Your task to perform on an android device: refresh tabs in the chrome app Image 0: 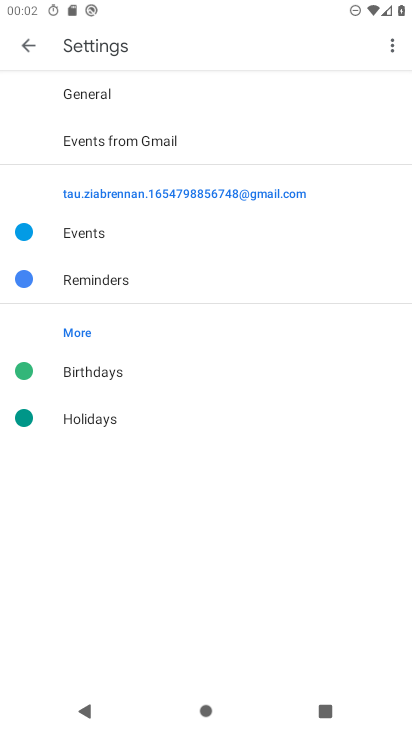
Step 0: press home button
Your task to perform on an android device: refresh tabs in the chrome app Image 1: 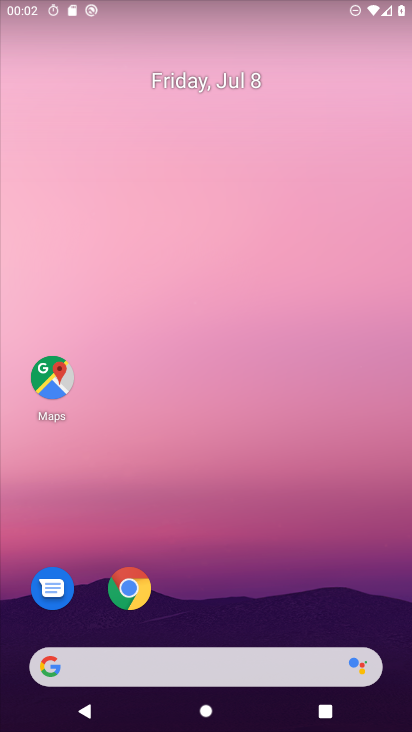
Step 1: drag from (262, 572) to (279, 154)
Your task to perform on an android device: refresh tabs in the chrome app Image 2: 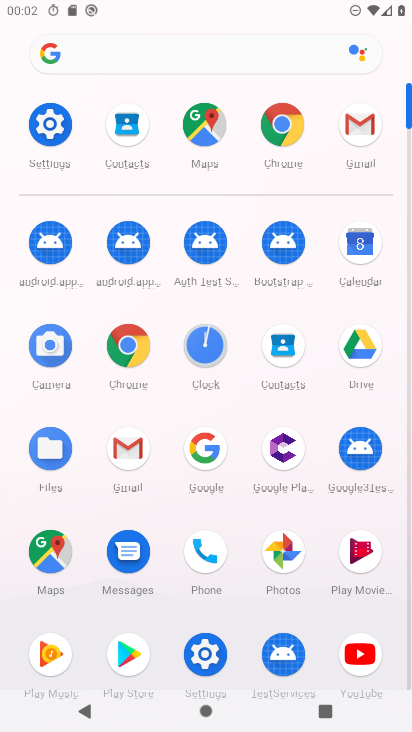
Step 2: click (285, 129)
Your task to perform on an android device: refresh tabs in the chrome app Image 3: 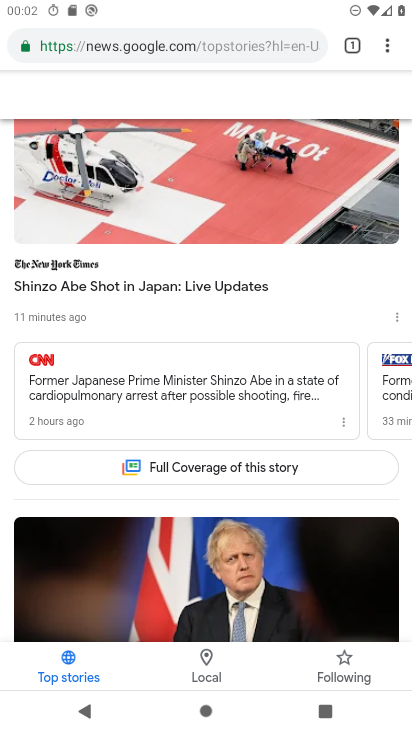
Step 3: click (388, 41)
Your task to perform on an android device: refresh tabs in the chrome app Image 4: 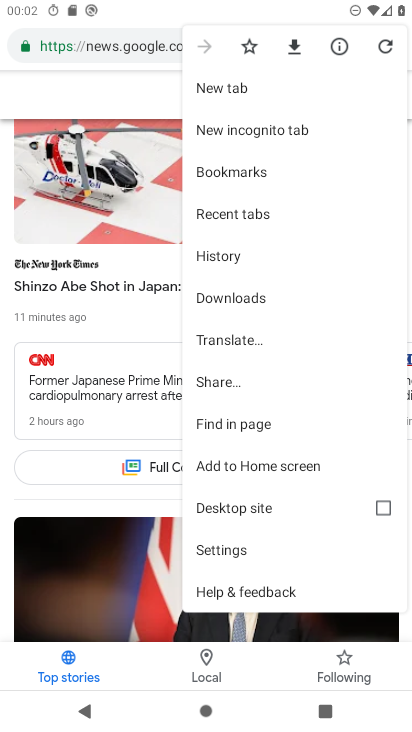
Step 4: click (387, 41)
Your task to perform on an android device: refresh tabs in the chrome app Image 5: 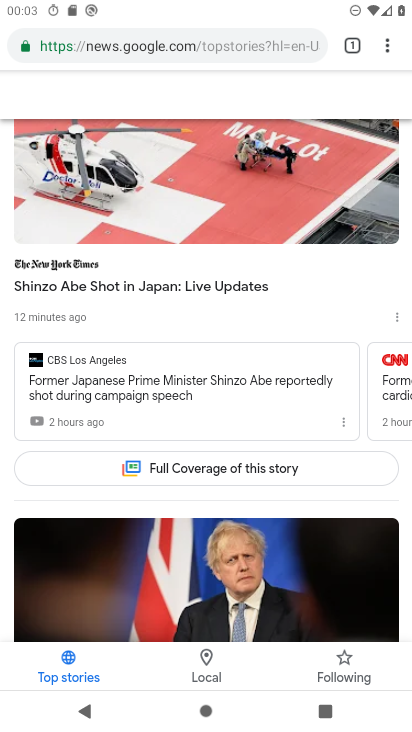
Step 5: task complete